Your task to perform on an android device: Open ESPN.com Image 0: 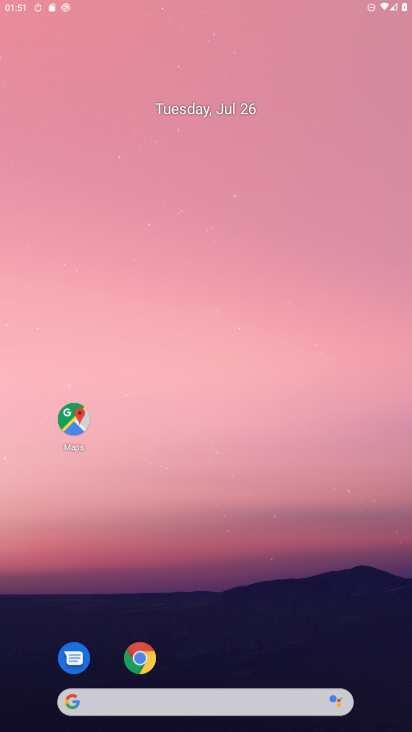
Step 0: click (312, 84)
Your task to perform on an android device: Open ESPN.com Image 1: 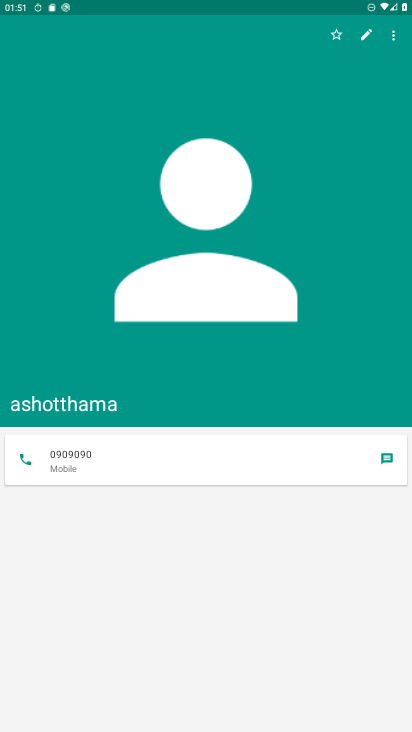
Step 1: press home button
Your task to perform on an android device: Open ESPN.com Image 2: 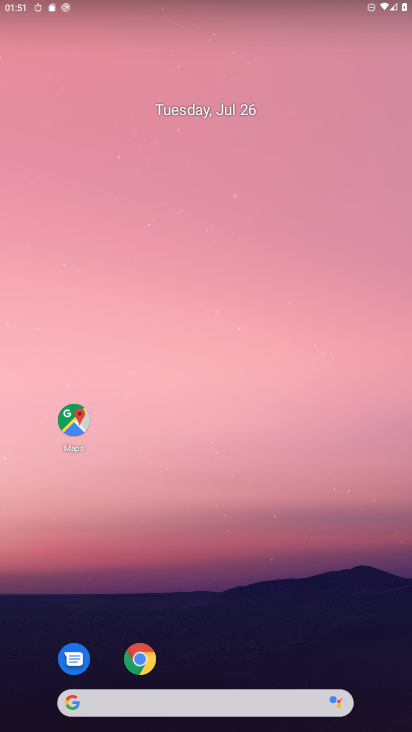
Step 2: click (145, 695)
Your task to perform on an android device: Open ESPN.com Image 3: 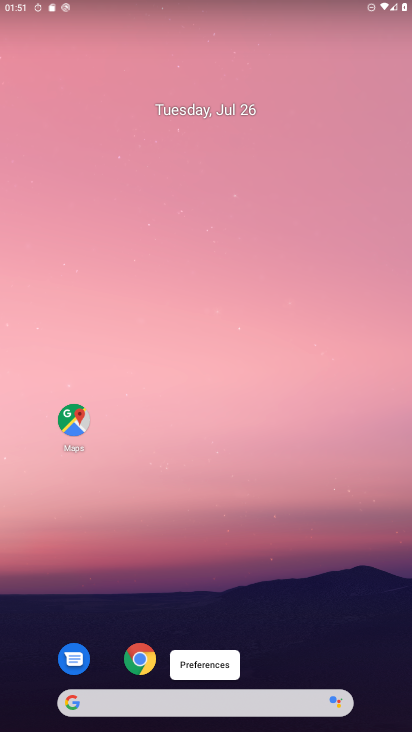
Step 3: click (115, 692)
Your task to perform on an android device: Open ESPN.com Image 4: 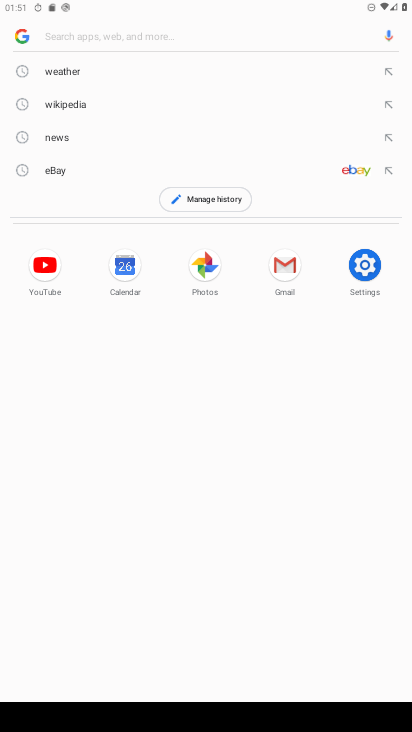
Step 4: type "ESPN.com"
Your task to perform on an android device: Open ESPN.com Image 5: 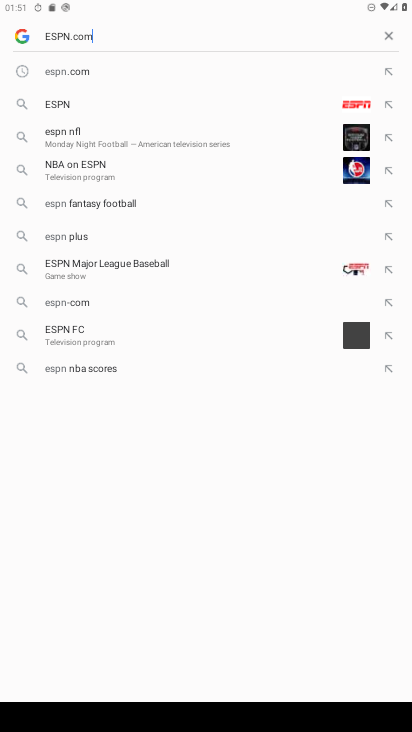
Step 5: type ""
Your task to perform on an android device: Open ESPN.com Image 6: 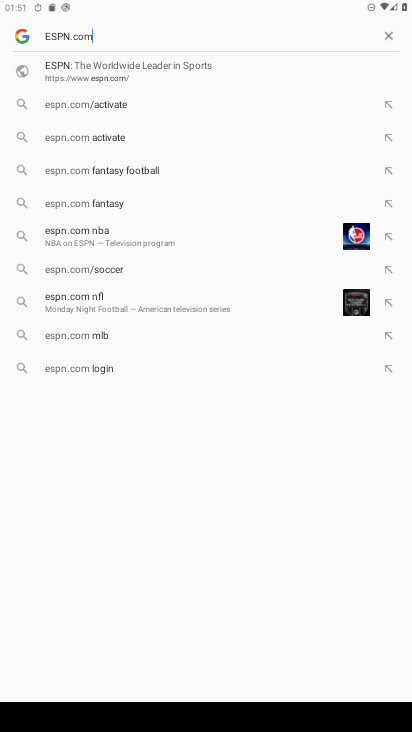
Step 6: click (54, 60)
Your task to perform on an android device: Open ESPN.com Image 7: 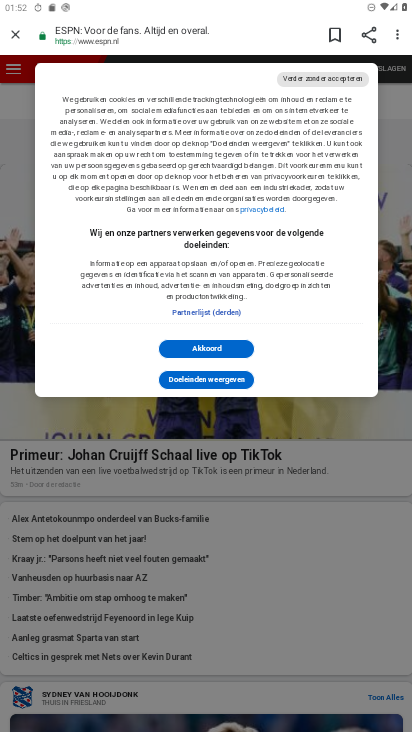
Step 7: task complete